Your task to perform on an android device: turn on airplane mode Image 0: 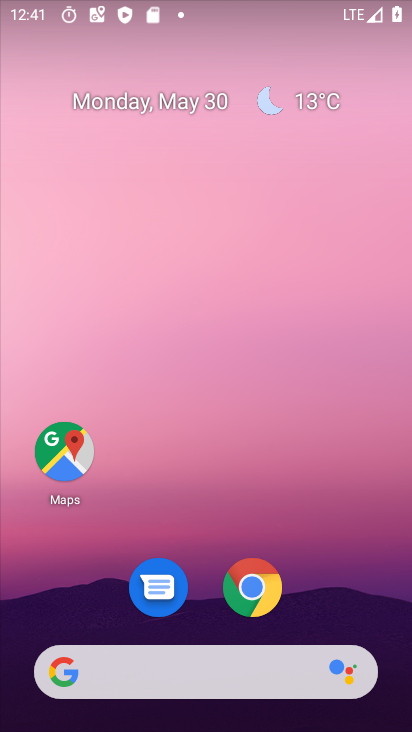
Step 0: drag from (343, 544) to (293, 175)
Your task to perform on an android device: turn on airplane mode Image 1: 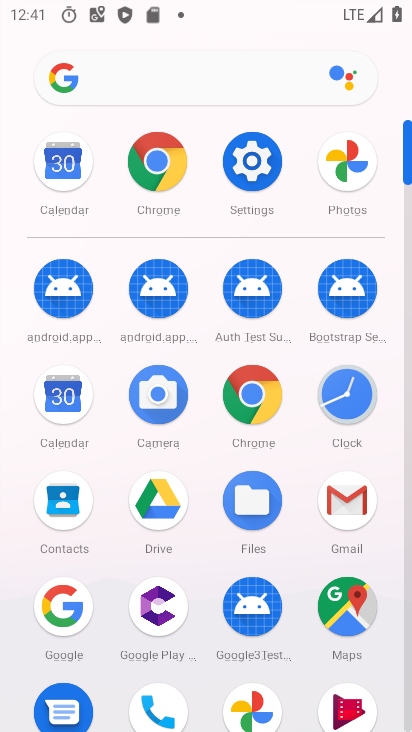
Step 1: click (248, 169)
Your task to perform on an android device: turn on airplane mode Image 2: 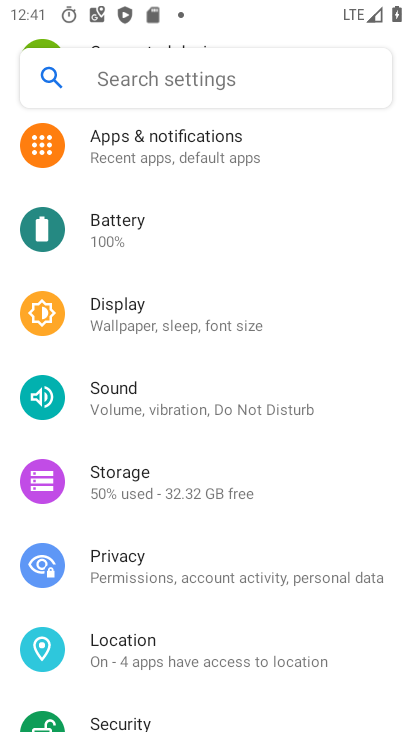
Step 2: drag from (237, 283) to (259, 589)
Your task to perform on an android device: turn on airplane mode Image 3: 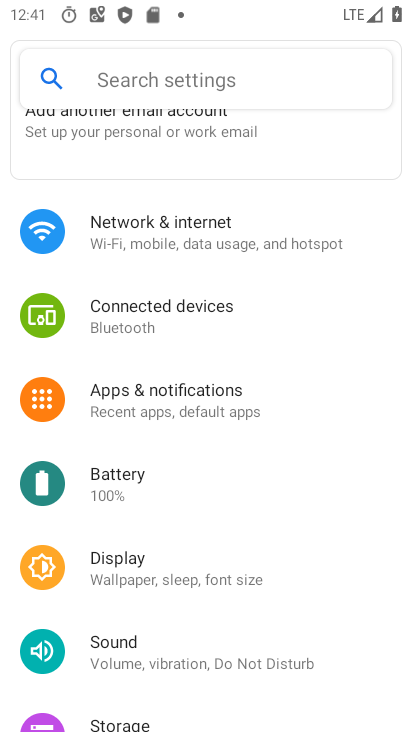
Step 3: click (217, 233)
Your task to perform on an android device: turn on airplane mode Image 4: 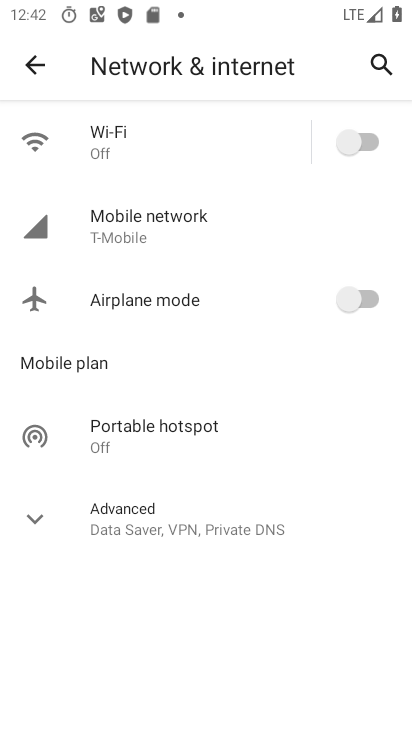
Step 4: click (363, 292)
Your task to perform on an android device: turn on airplane mode Image 5: 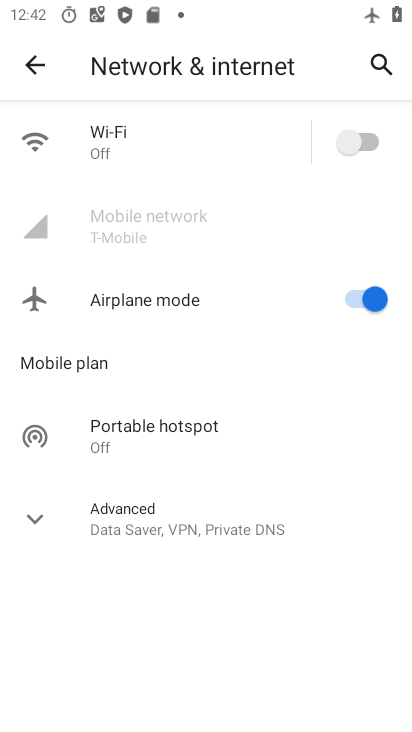
Step 5: task complete